Your task to perform on an android device: Empty the shopping cart on ebay. Add "razer kraken" to the cart on ebay, then select checkout. Image 0: 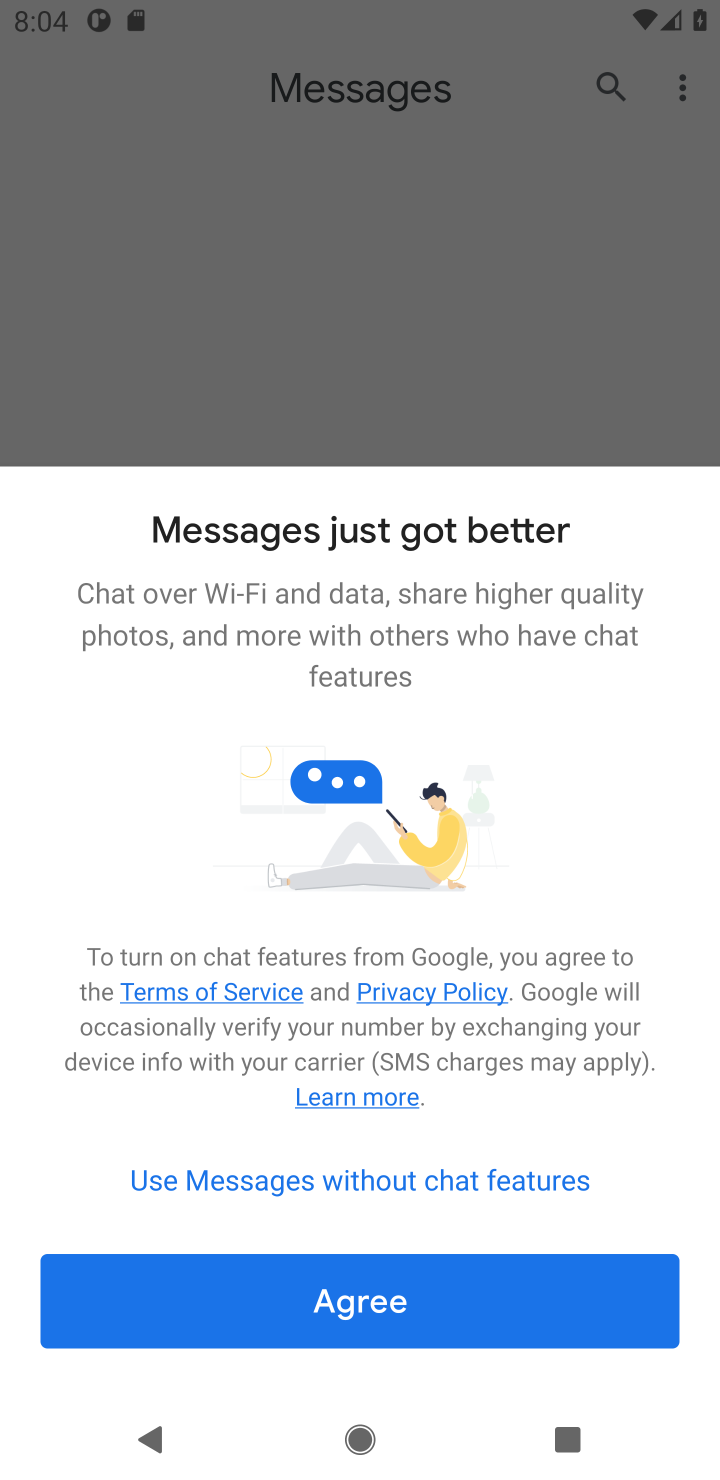
Step 0: press home button
Your task to perform on an android device: Empty the shopping cart on ebay. Add "razer kraken" to the cart on ebay, then select checkout. Image 1: 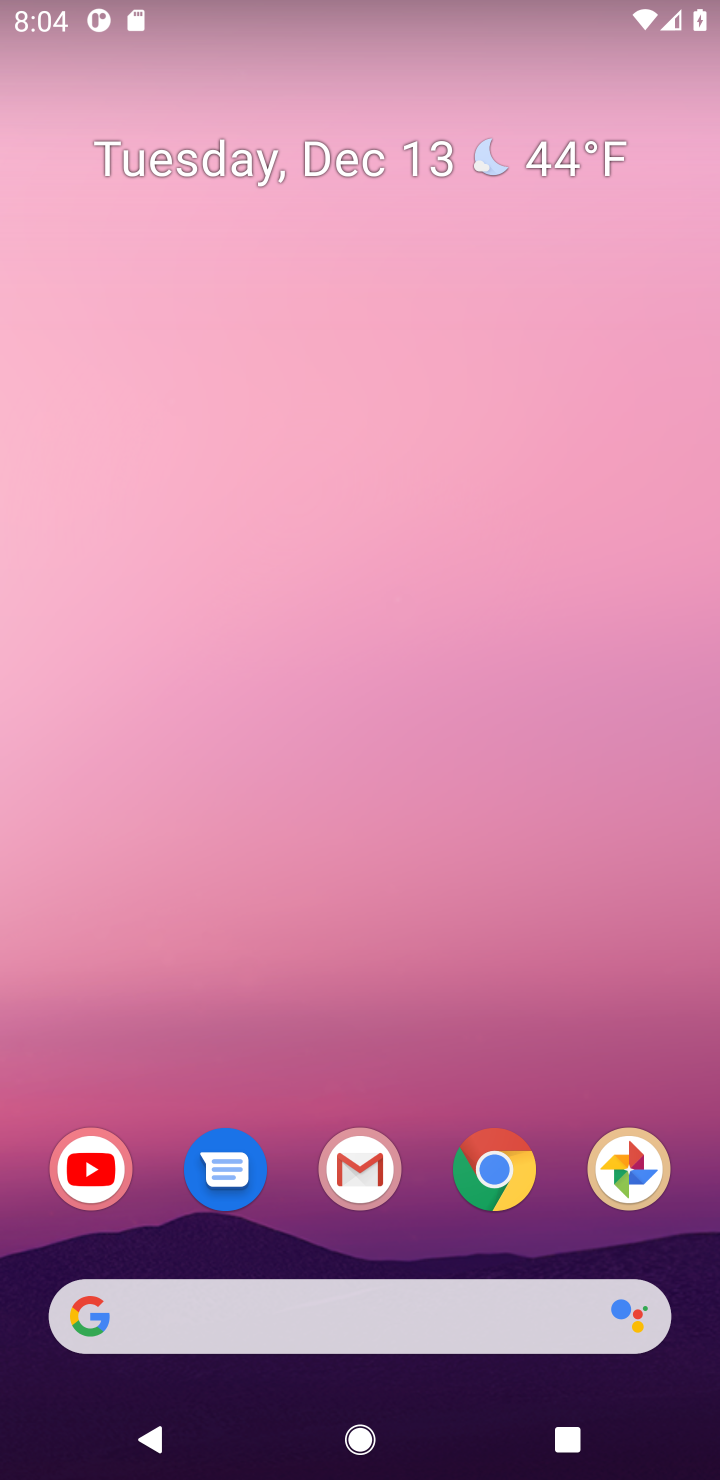
Step 1: click (463, 1162)
Your task to perform on an android device: Empty the shopping cart on ebay. Add "razer kraken" to the cart on ebay, then select checkout. Image 2: 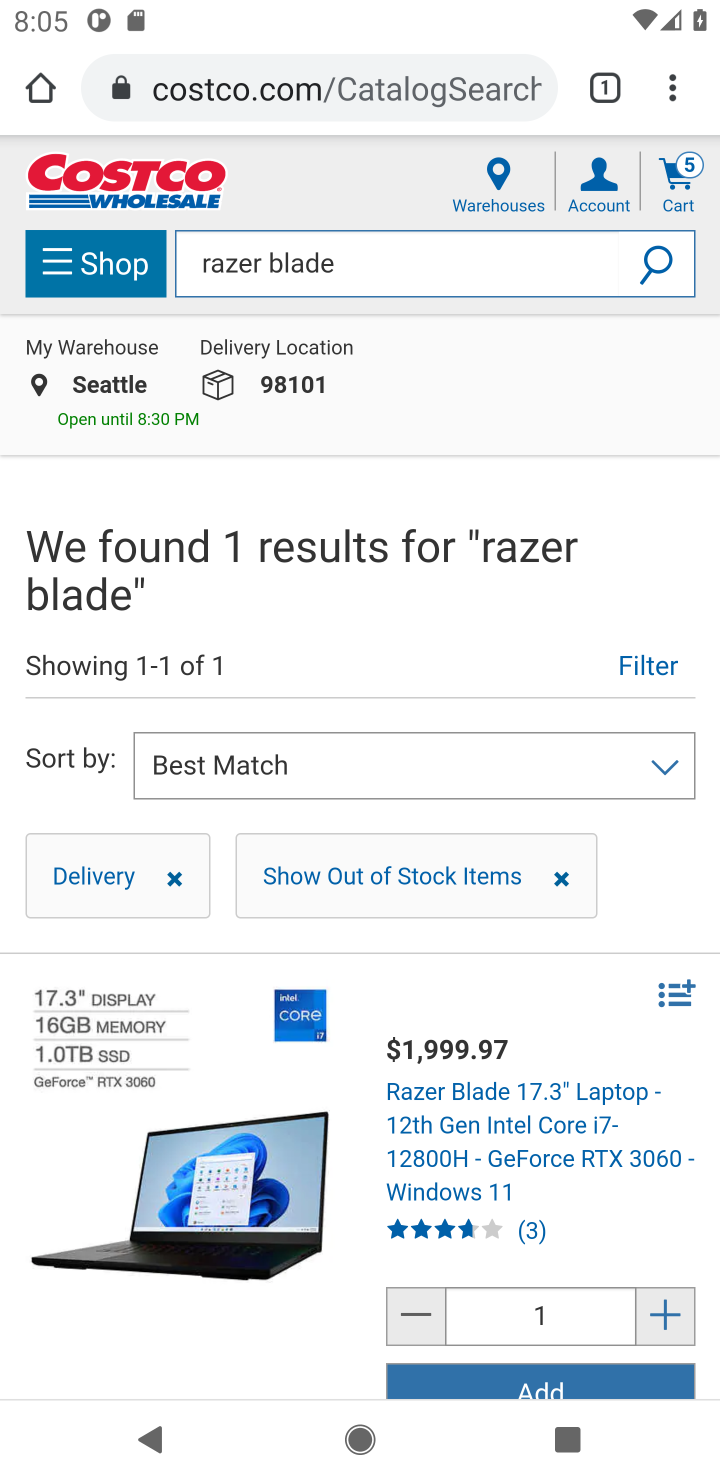
Step 2: click (319, 74)
Your task to perform on an android device: Empty the shopping cart on ebay. Add "razer kraken" to the cart on ebay, then select checkout. Image 3: 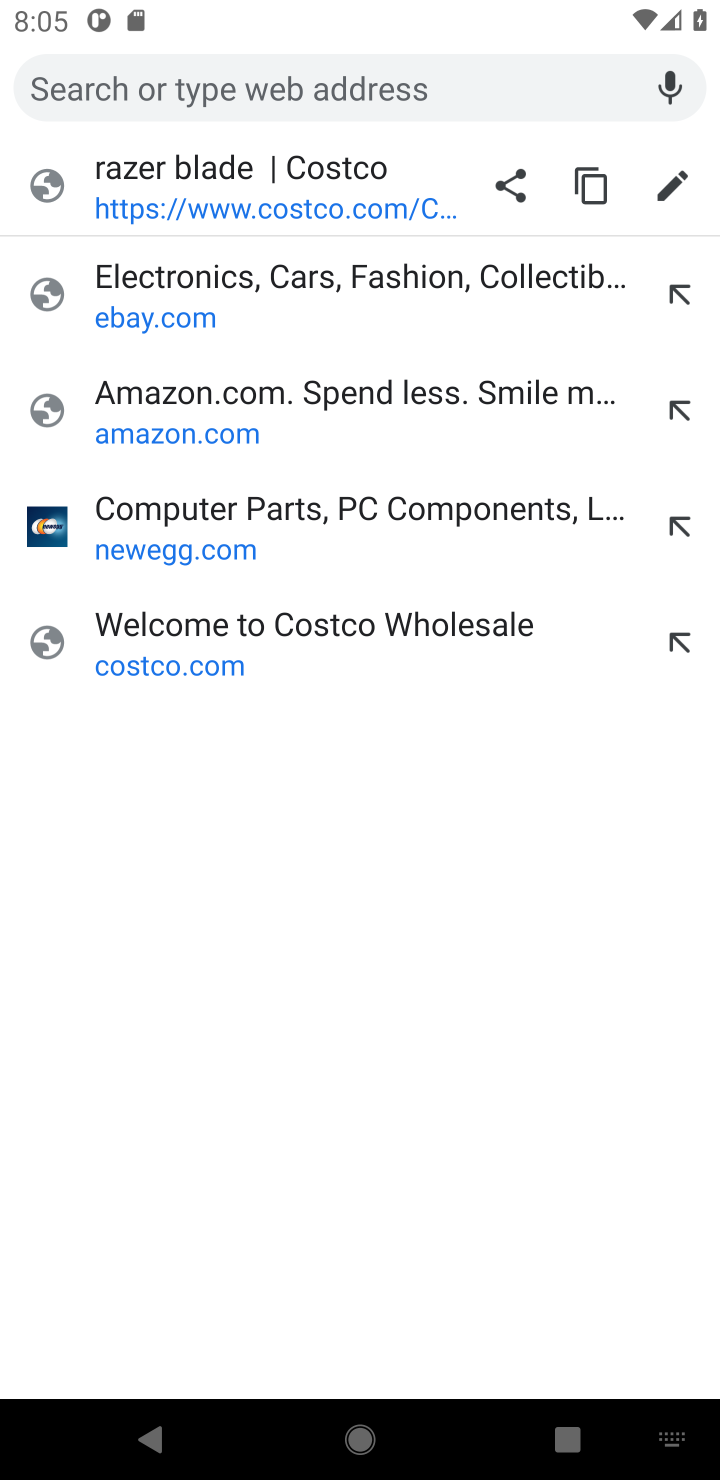
Step 3: type "ebay"
Your task to perform on an android device: Empty the shopping cart on ebay. Add "razer kraken" to the cart on ebay, then select checkout. Image 4: 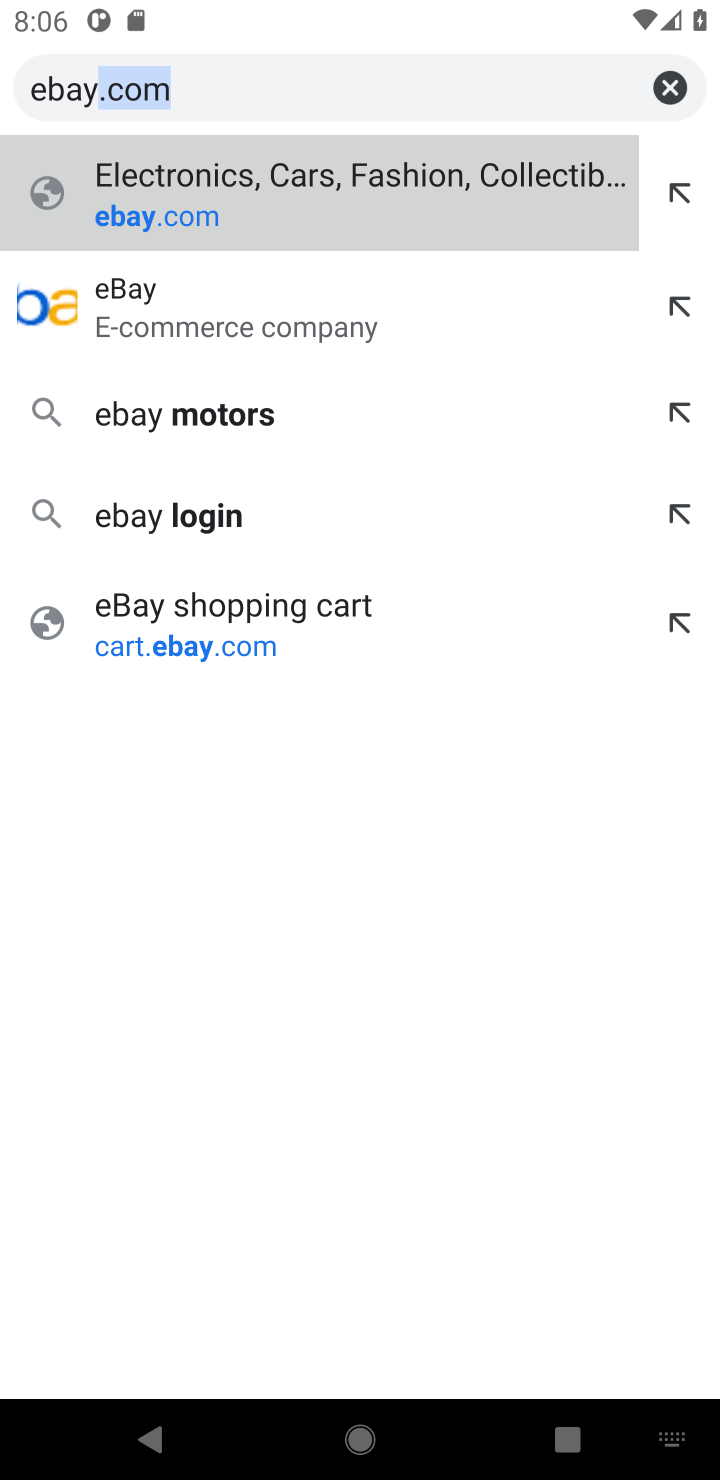
Step 4: click (439, 230)
Your task to perform on an android device: Empty the shopping cart on ebay. Add "razer kraken" to the cart on ebay, then select checkout. Image 5: 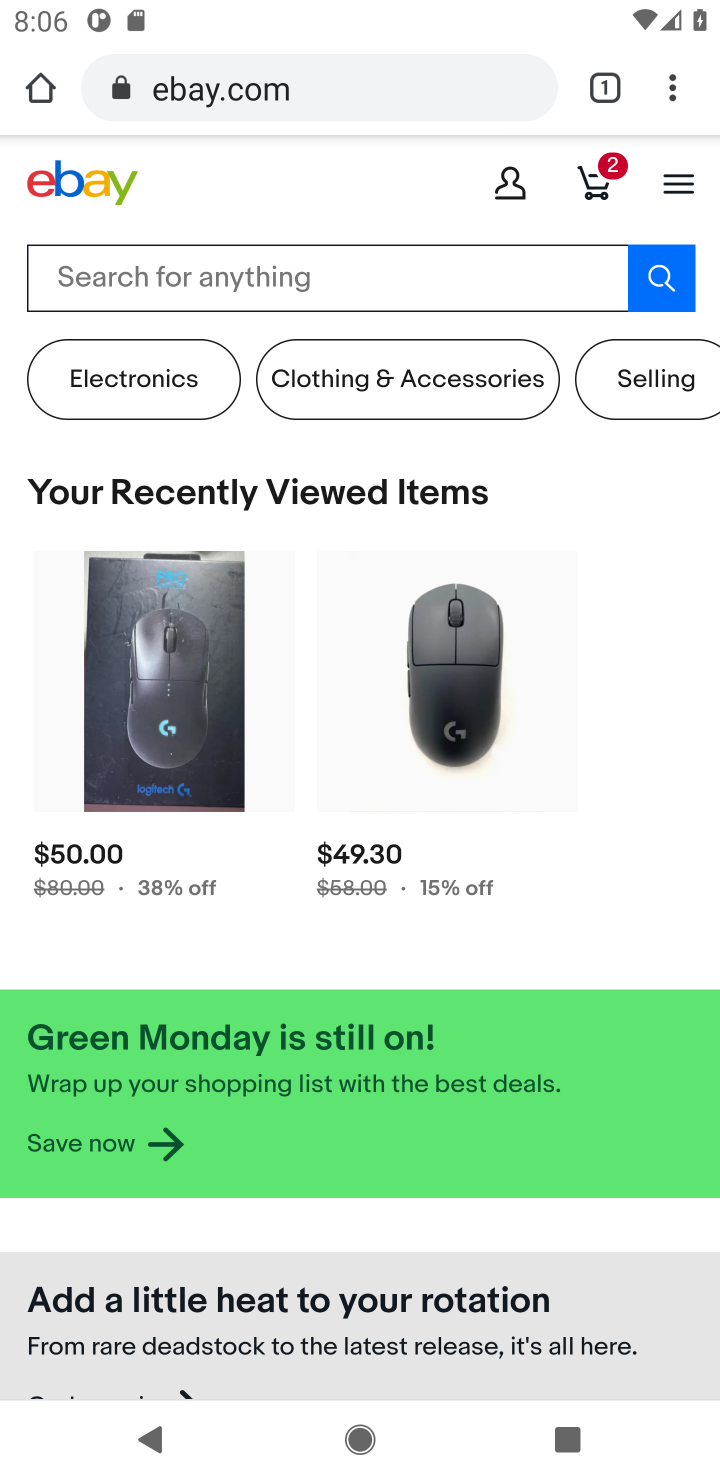
Step 5: task complete